Your task to perform on an android device: change text size in settings app Image 0: 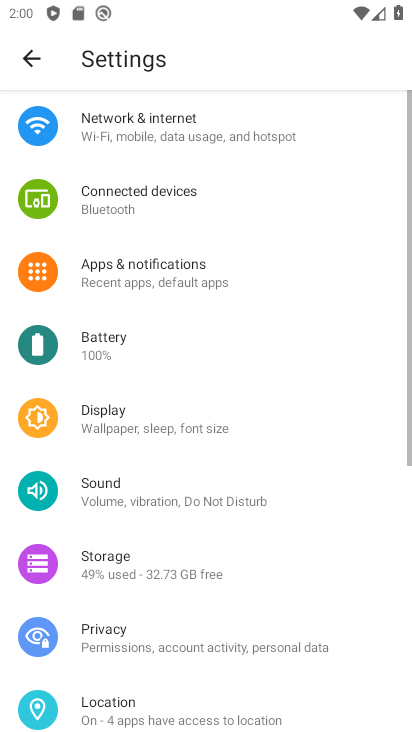
Step 0: drag from (176, 688) to (174, 304)
Your task to perform on an android device: change text size in settings app Image 1: 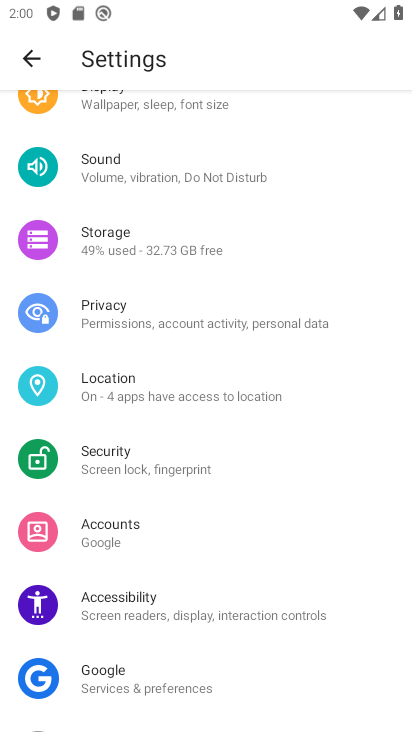
Step 1: drag from (117, 695) to (121, 407)
Your task to perform on an android device: change text size in settings app Image 2: 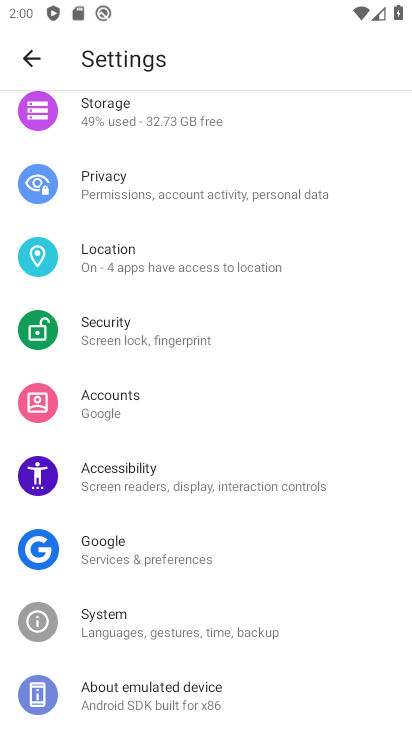
Step 2: click (114, 468)
Your task to perform on an android device: change text size in settings app Image 3: 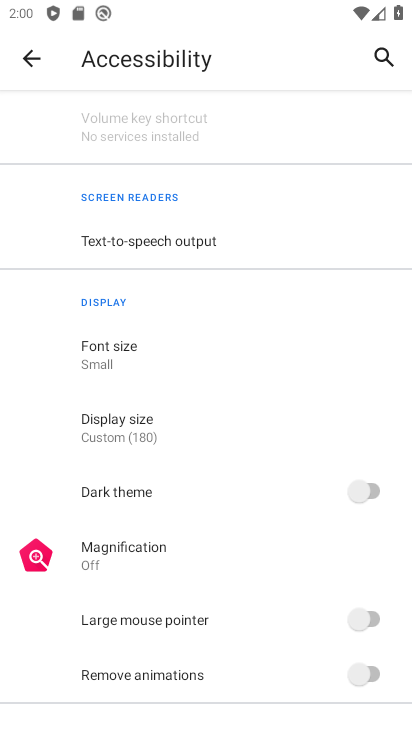
Step 3: click (86, 361)
Your task to perform on an android device: change text size in settings app Image 4: 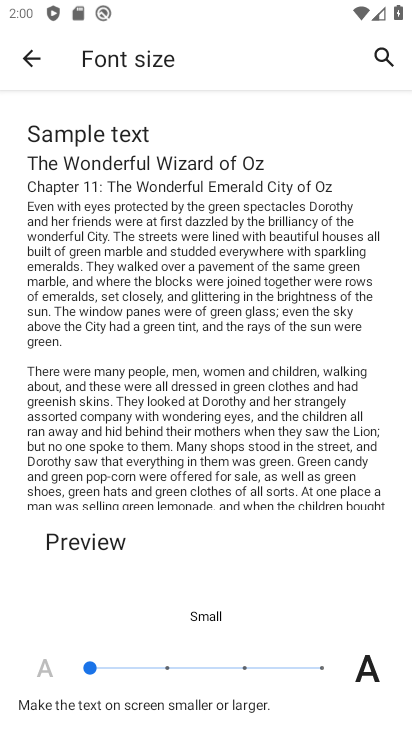
Step 4: click (167, 663)
Your task to perform on an android device: change text size in settings app Image 5: 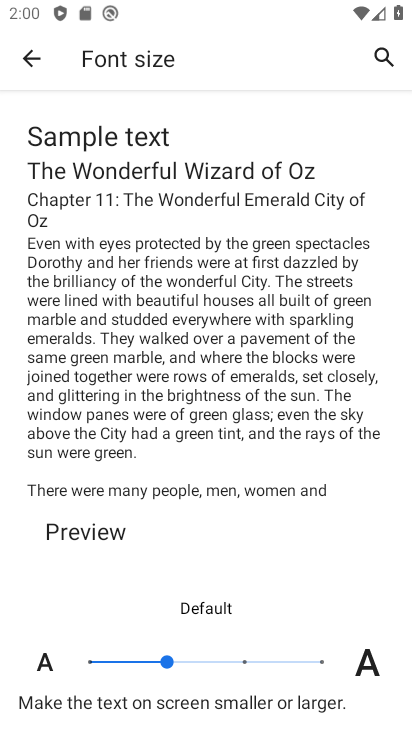
Step 5: task complete